Your task to perform on an android device: What's the weather going to be tomorrow? Image 0: 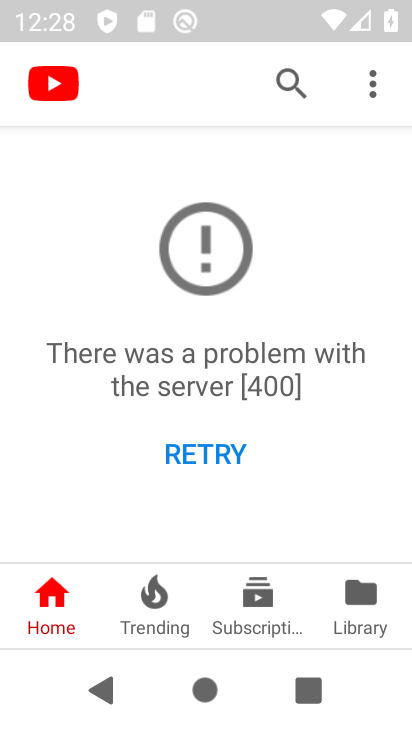
Step 0: press home button
Your task to perform on an android device: What's the weather going to be tomorrow? Image 1: 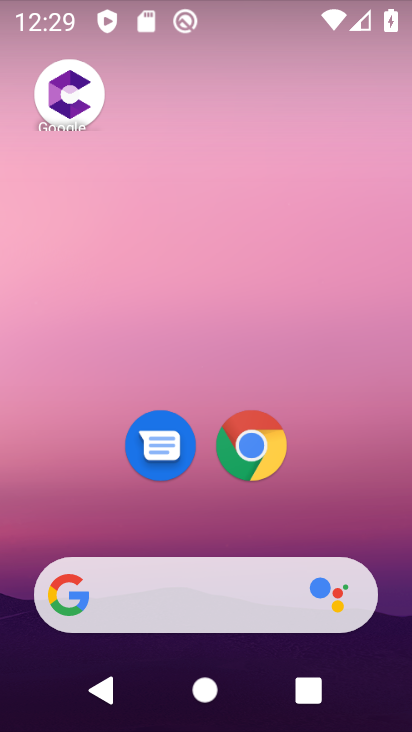
Step 1: drag from (294, 488) to (250, 104)
Your task to perform on an android device: What's the weather going to be tomorrow? Image 2: 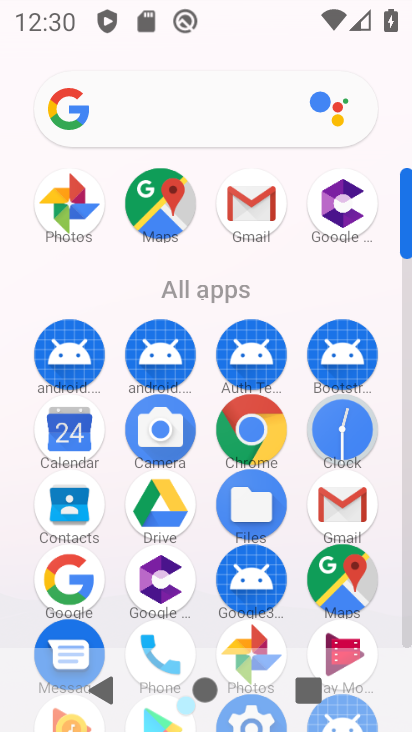
Step 2: click (253, 429)
Your task to perform on an android device: What's the weather going to be tomorrow? Image 3: 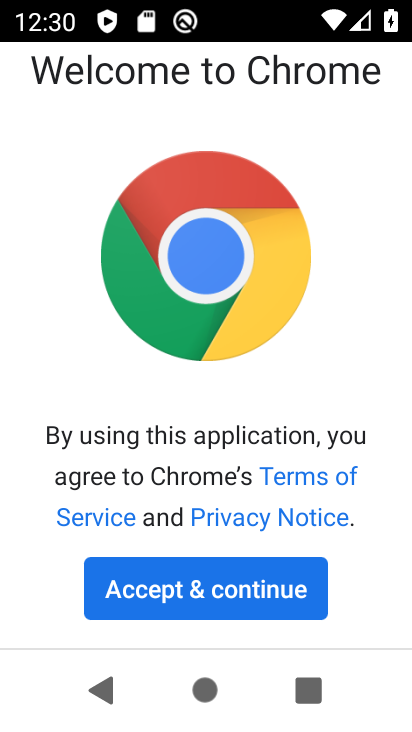
Step 3: click (294, 597)
Your task to perform on an android device: What's the weather going to be tomorrow? Image 4: 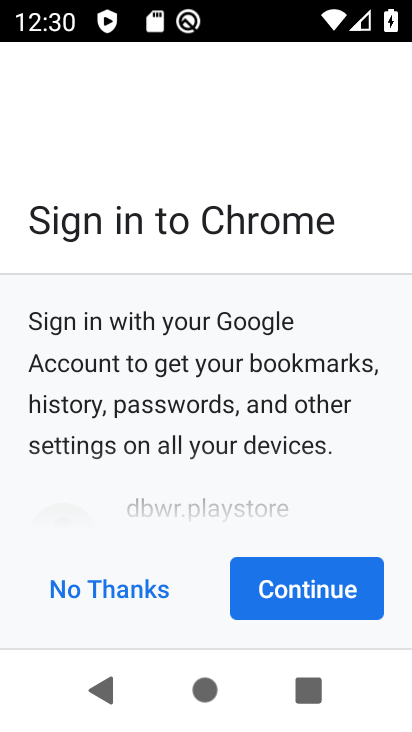
Step 4: click (302, 591)
Your task to perform on an android device: What's the weather going to be tomorrow? Image 5: 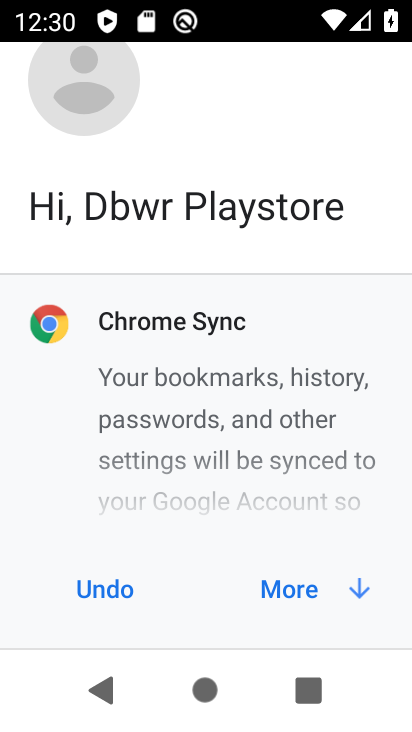
Step 5: click (304, 591)
Your task to perform on an android device: What's the weather going to be tomorrow? Image 6: 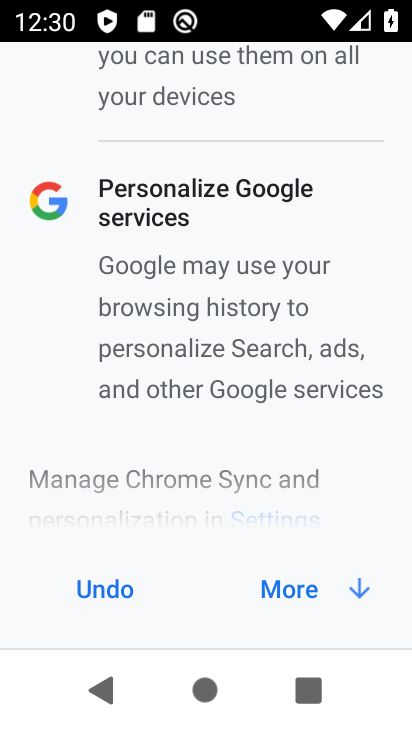
Step 6: click (305, 591)
Your task to perform on an android device: What's the weather going to be tomorrow? Image 7: 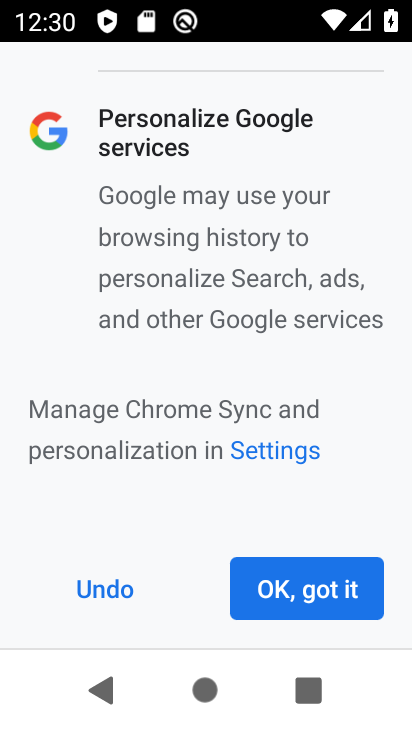
Step 7: click (306, 591)
Your task to perform on an android device: What's the weather going to be tomorrow? Image 8: 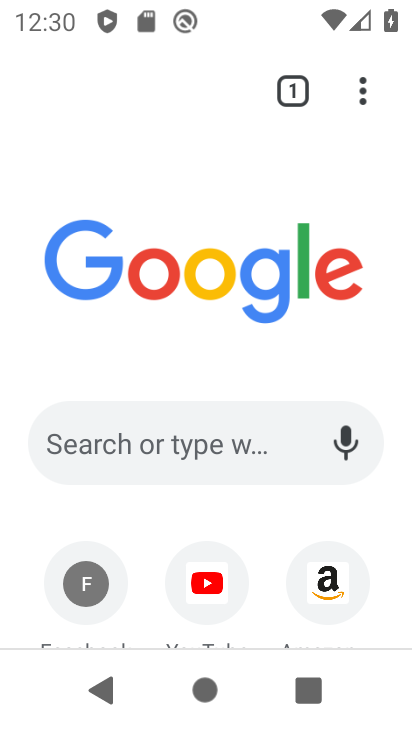
Step 8: click (193, 461)
Your task to perform on an android device: What's the weather going to be tomorrow? Image 9: 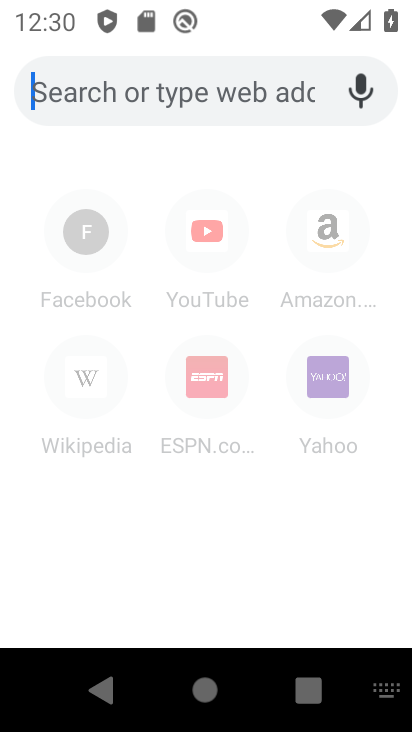
Step 9: type "What's the weather going to be tomorrow?"
Your task to perform on an android device: What's the weather going to be tomorrow? Image 10: 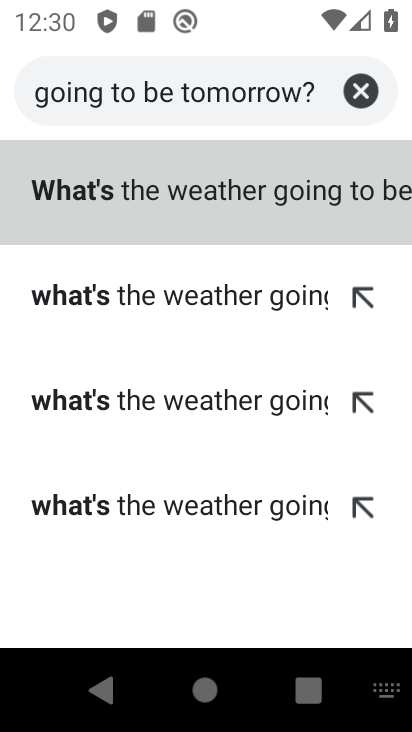
Step 10: click (225, 188)
Your task to perform on an android device: What's the weather going to be tomorrow? Image 11: 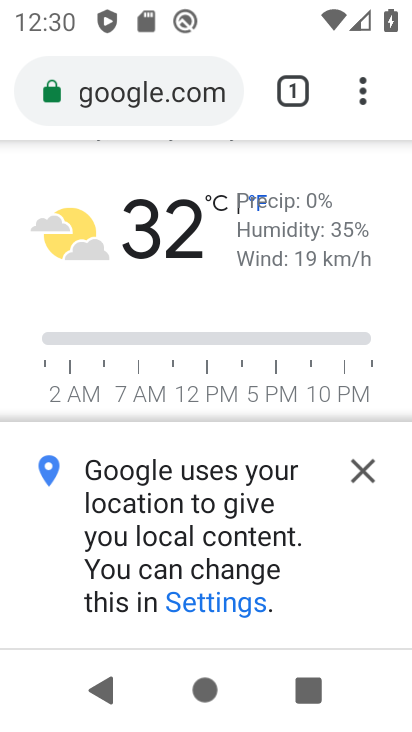
Step 11: task complete